Your task to perform on an android device: open a bookmark in the chrome app Image 0: 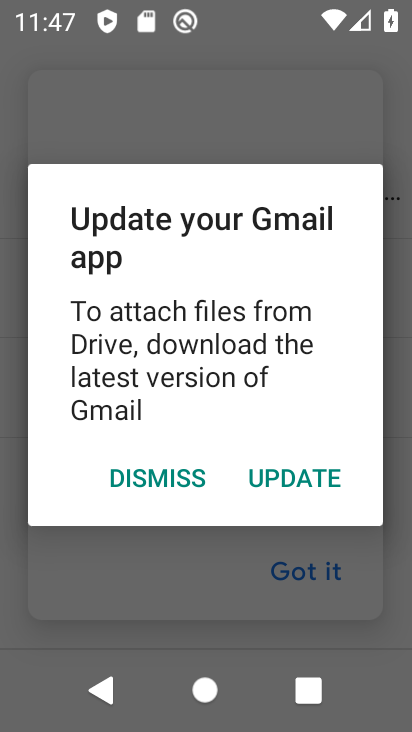
Step 0: press home button
Your task to perform on an android device: open a bookmark in the chrome app Image 1: 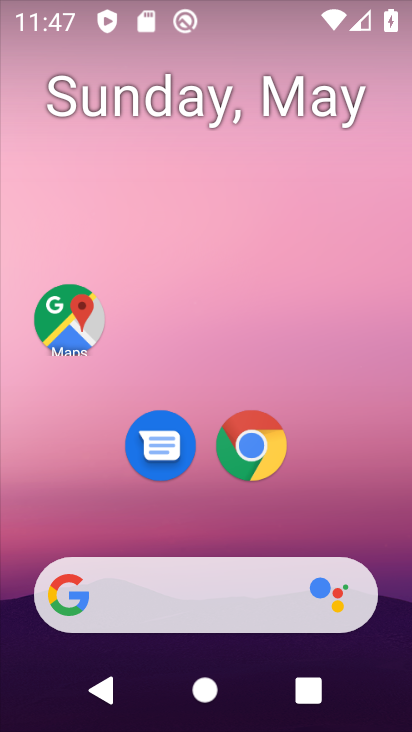
Step 1: click (240, 439)
Your task to perform on an android device: open a bookmark in the chrome app Image 2: 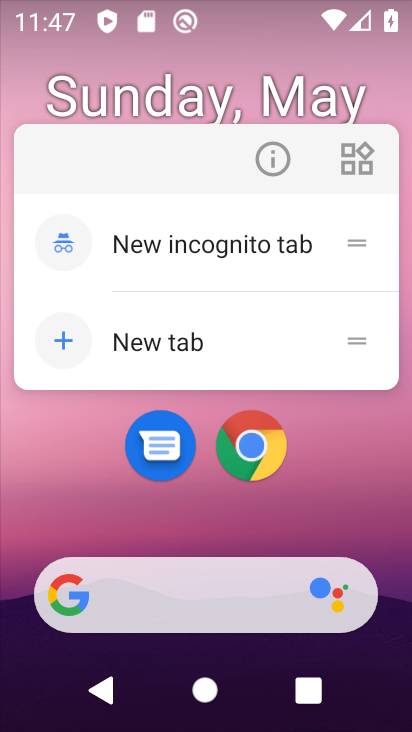
Step 2: click (256, 457)
Your task to perform on an android device: open a bookmark in the chrome app Image 3: 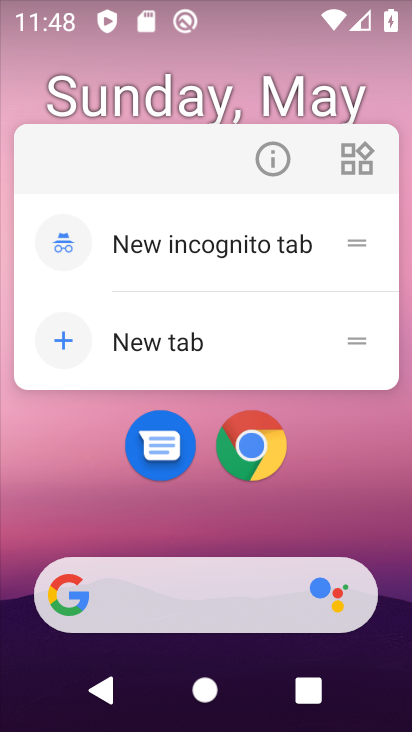
Step 3: click (256, 443)
Your task to perform on an android device: open a bookmark in the chrome app Image 4: 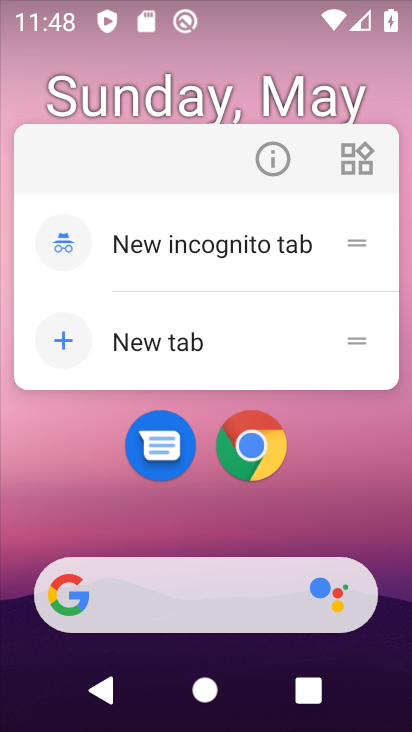
Step 4: click (192, 513)
Your task to perform on an android device: open a bookmark in the chrome app Image 5: 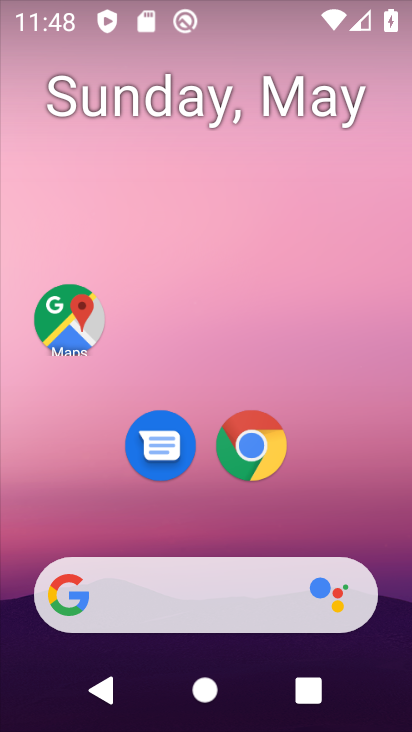
Step 5: drag from (315, 472) to (345, 56)
Your task to perform on an android device: open a bookmark in the chrome app Image 6: 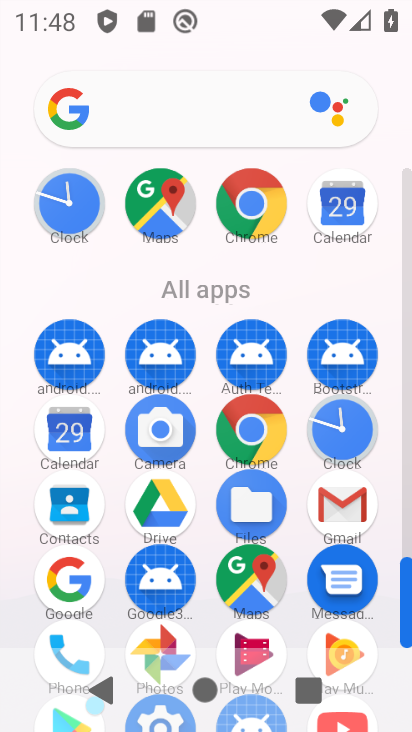
Step 6: click (248, 437)
Your task to perform on an android device: open a bookmark in the chrome app Image 7: 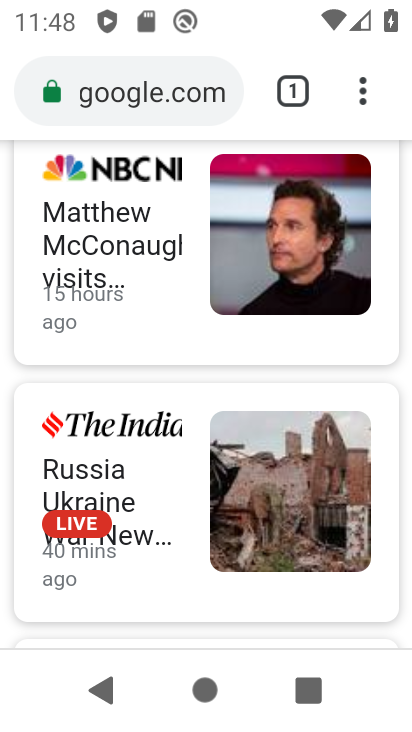
Step 7: task complete